Your task to perform on an android device: Open Youtube and go to the subscriptions tab Image 0: 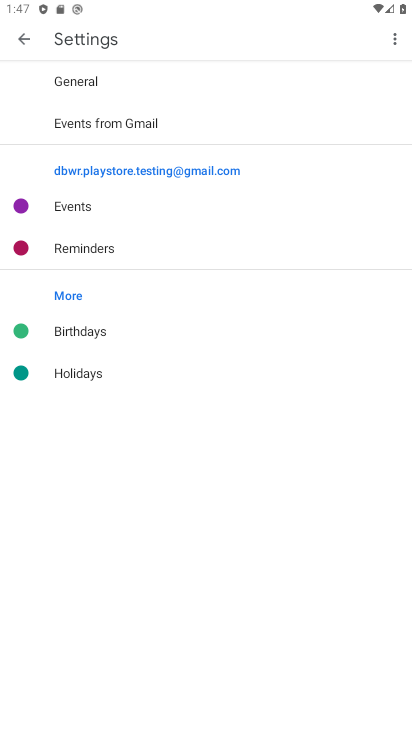
Step 0: press home button
Your task to perform on an android device: Open Youtube and go to the subscriptions tab Image 1: 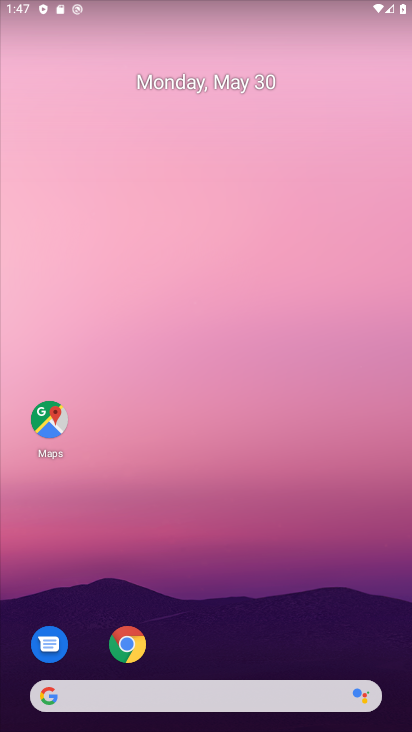
Step 1: drag from (196, 625) to (129, 206)
Your task to perform on an android device: Open Youtube and go to the subscriptions tab Image 2: 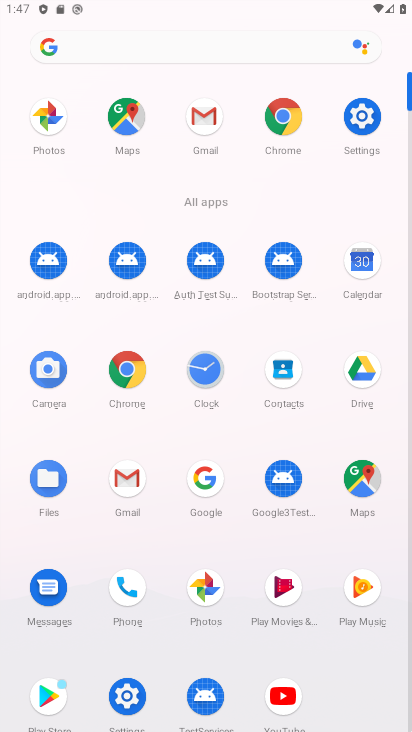
Step 2: click (283, 700)
Your task to perform on an android device: Open Youtube and go to the subscriptions tab Image 3: 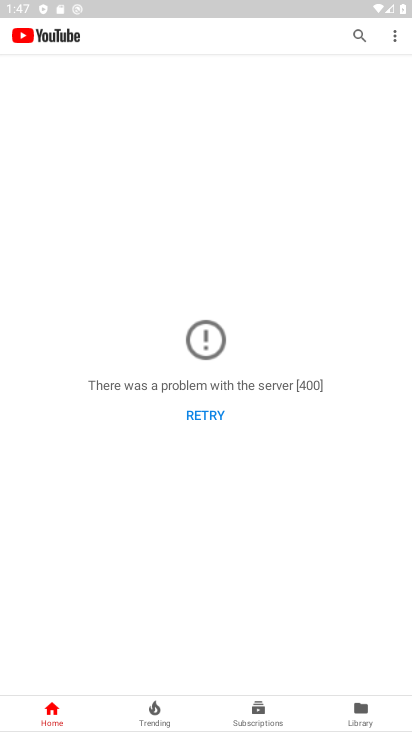
Step 3: click (248, 713)
Your task to perform on an android device: Open Youtube and go to the subscriptions tab Image 4: 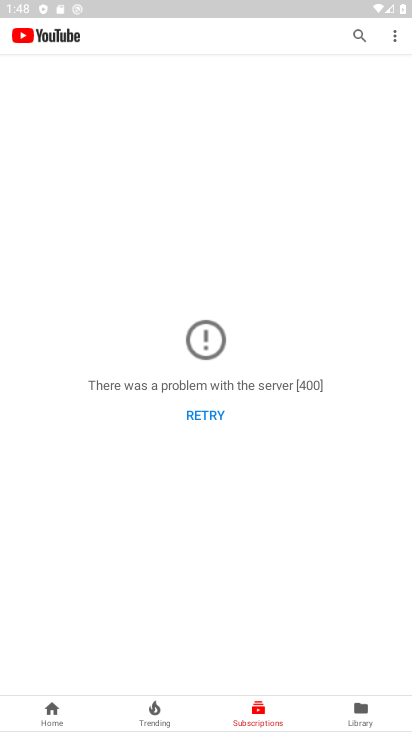
Step 4: task complete